Your task to perform on an android device: Go to CNN.com Image 0: 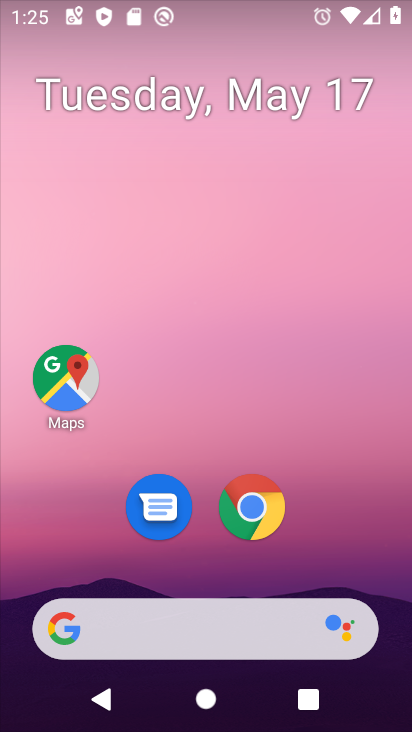
Step 0: drag from (335, 550) to (337, 99)
Your task to perform on an android device: Go to CNN.com Image 1: 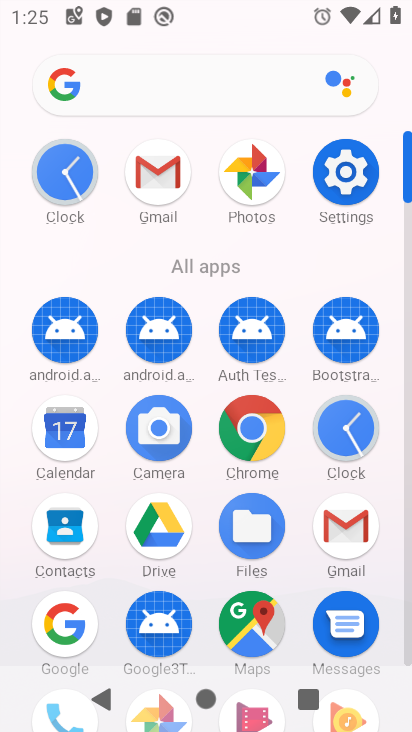
Step 1: click (263, 425)
Your task to perform on an android device: Go to CNN.com Image 2: 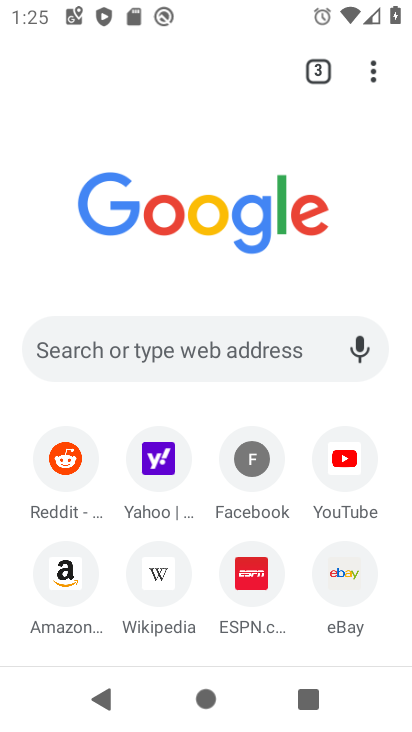
Step 2: click (251, 340)
Your task to perform on an android device: Go to CNN.com Image 3: 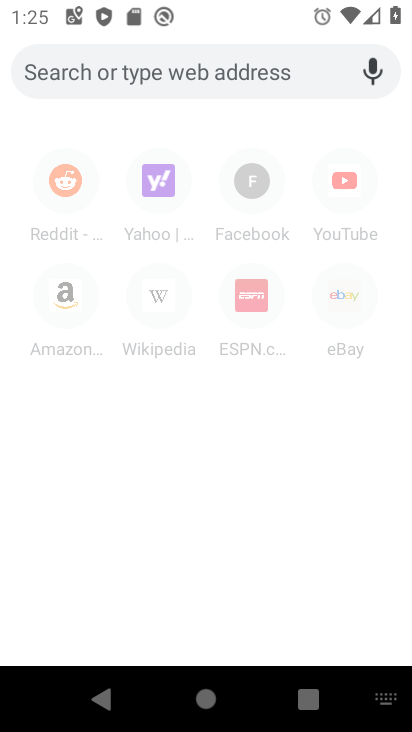
Step 3: type "CNN.com"
Your task to perform on an android device: Go to CNN.com Image 4: 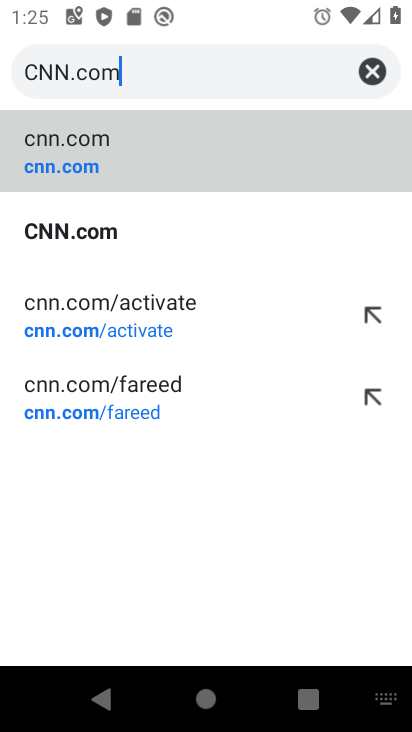
Step 4: click (161, 139)
Your task to perform on an android device: Go to CNN.com Image 5: 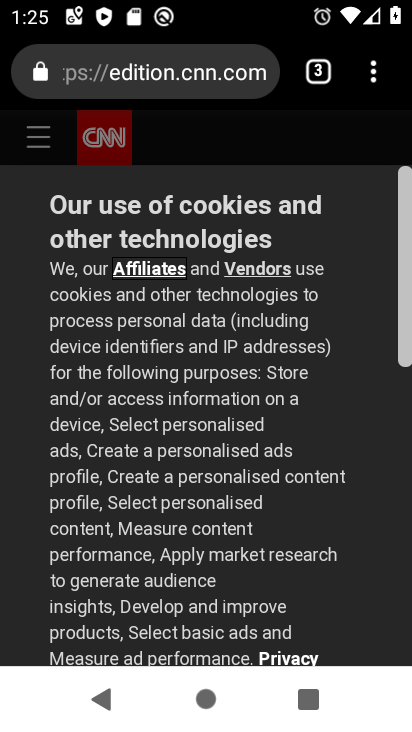
Step 5: task complete